Your task to perform on an android device: Go to Maps Image 0: 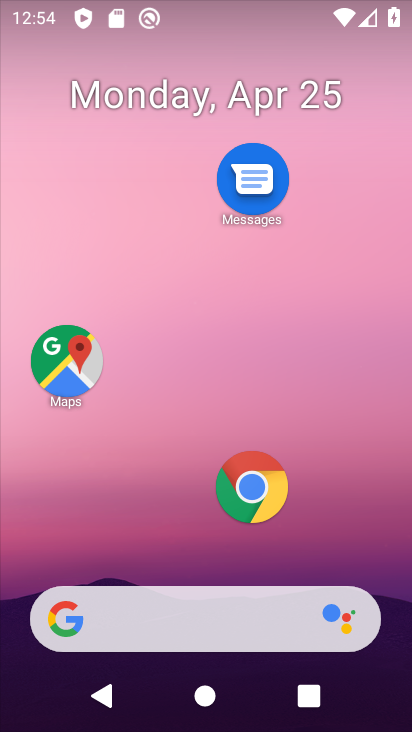
Step 0: drag from (354, 573) to (344, 0)
Your task to perform on an android device: Go to Maps Image 1: 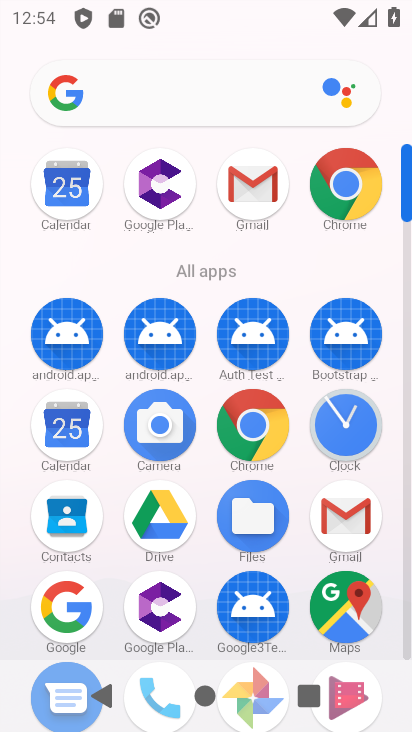
Step 1: click (363, 610)
Your task to perform on an android device: Go to Maps Image 2: 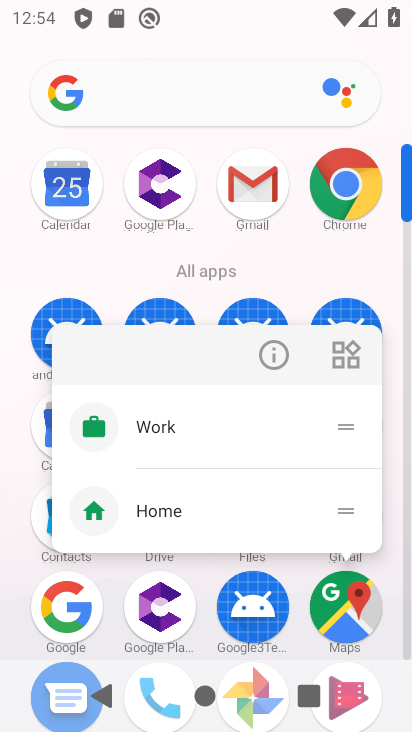
Step 2: click (315, 613)
Your task to perform on an android device: Go to Maps Image 3: 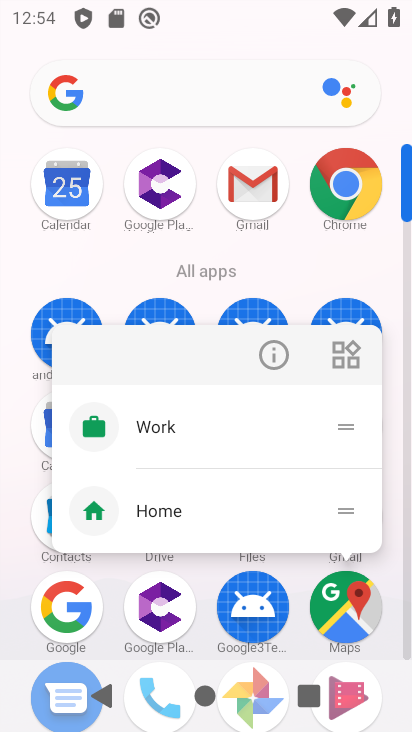
Step 3: click (330, 599)
Your task to perform on an android device: Go to Maps Image 4: 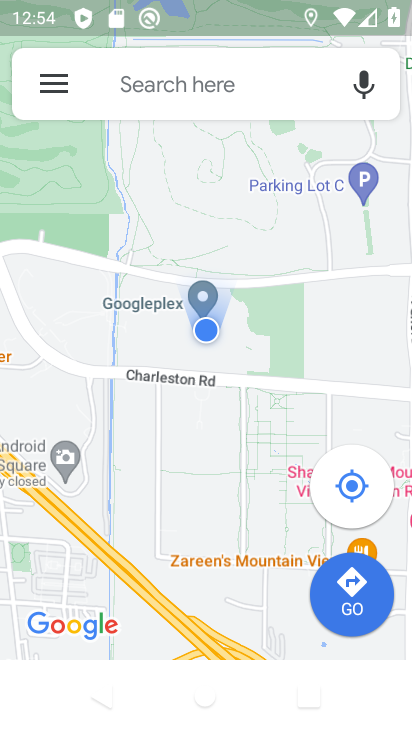
Step 4: click (193, 84)
Your task to perform on an android device: Go to Maps Image 5: 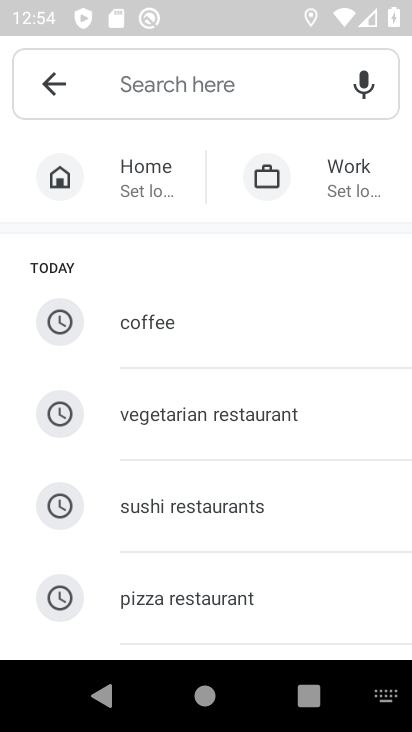
Step 5: task complete